Your task to perform on an android device: find snoozed emails in the gmail app Image 0: 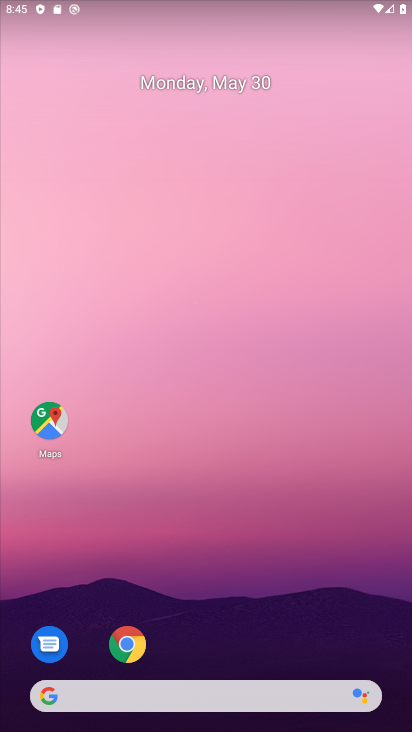
Step 0: drag from (201, 540) to (209, 40)
Your task to perform on an android device: find snoozed emails in the gmail app Image 1: 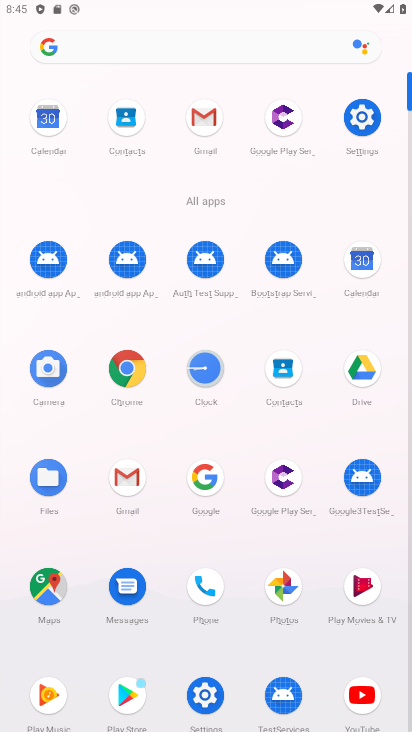
Step 1: click (124, 475)
Your task to perform on an android device: find snoozed emails in the gmail app Image 2: 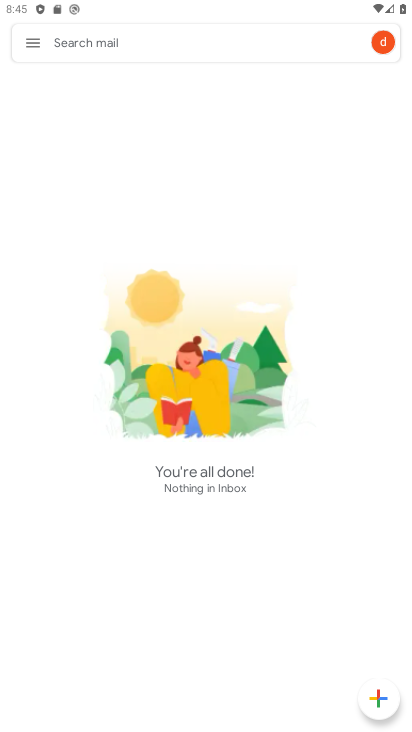
Step 2: click (25, 42)
Your task to perform on an android device: find snoozed emails in the gmail app Image 3: 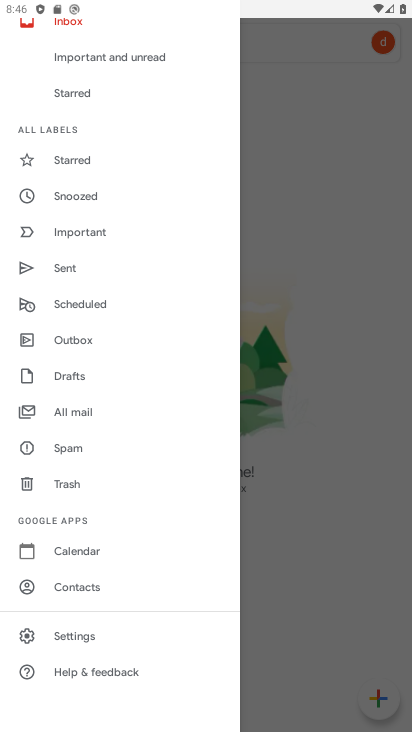
Step 3: click (65, 193)
Your task to perform on an android device: find snoozed emails in the gmail app Image 4: 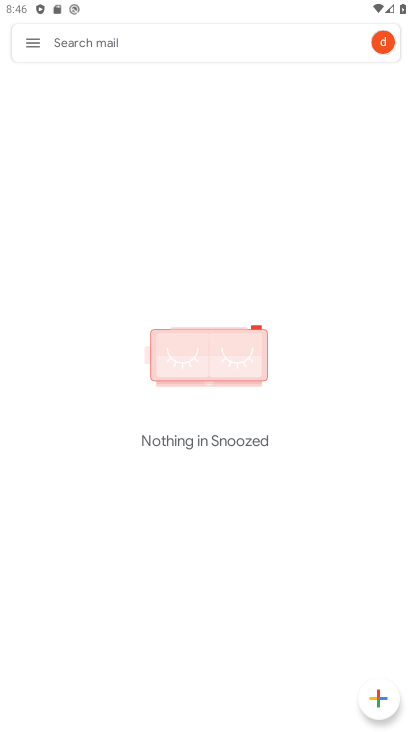
Step 4: task complete